Your task to perform on an android device: Go to Google maps Image 0: 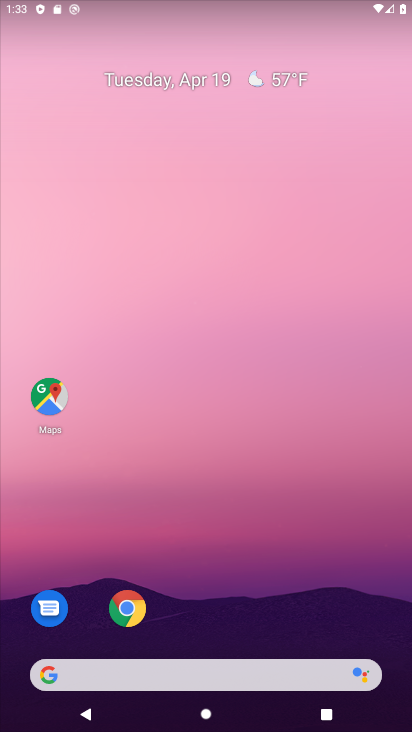
Step 0: click (52, 393)
Your task to perform on an android device: Go to Google maps Image 1: 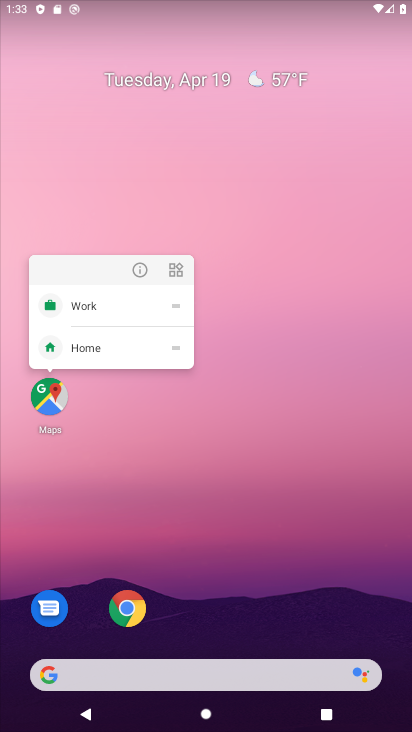
Step 1: click (41, 399)
Your task to perform on an android device: Go to Google maps Image 2: 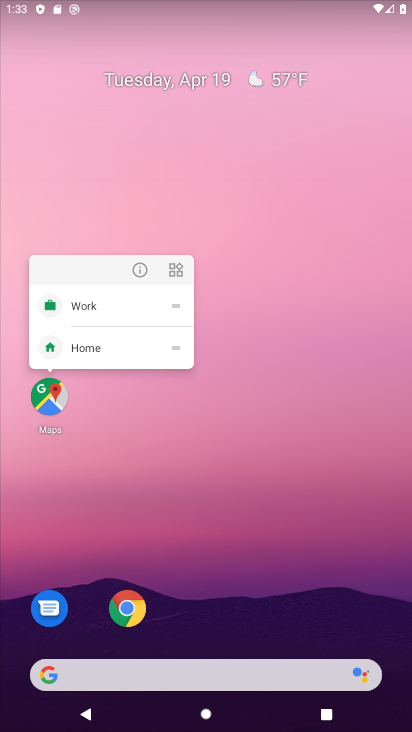
Step 2: click (60, 414)
Your task to perform on an android device: Go to Google maps Image 3: 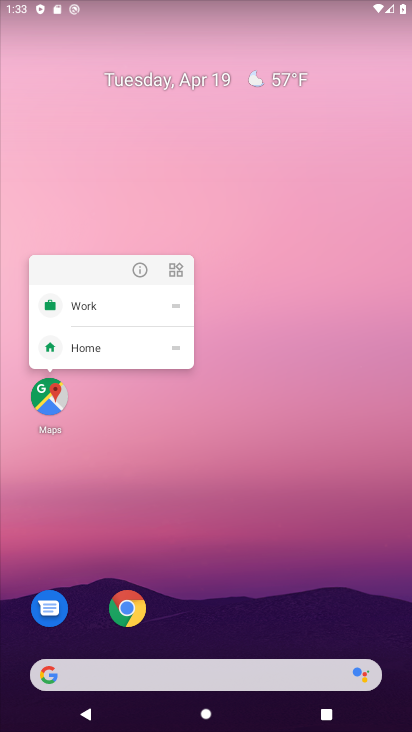
Step 3: click (52, 406)
Your task to perform on an android device: Go to Google maps Image 4: 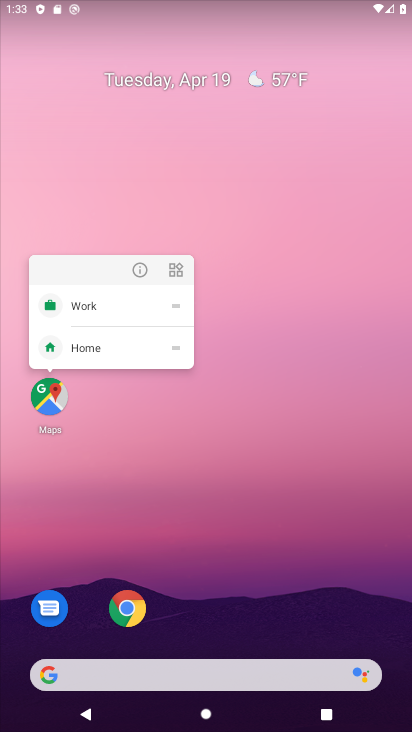
Step 4: click (45, 411)
Your task to perform on an android device: Go to Google maps Image 5: 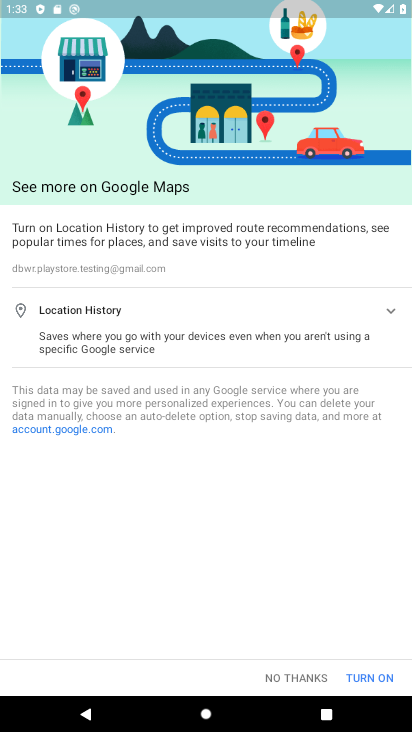
Step 5: click (370, 681)
Your task to perform on an android device: Go to Google maps Image 6: 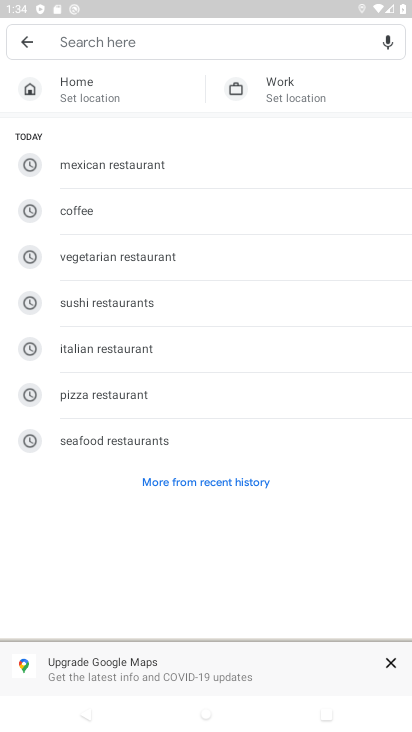
Step 6: task complete